Your task to perform on an android device: Is it going to rain this weekend? Image 0: 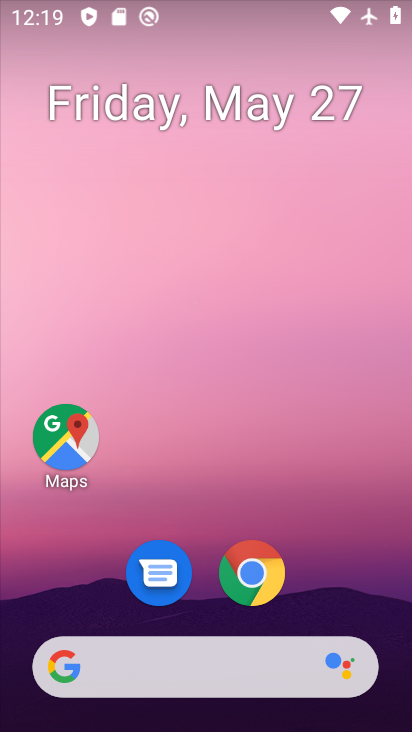
Step 0: drag from (328, 548) to (341, 90)
Your task to perform on an android device: Is it going to rain this weekend? Image 1: 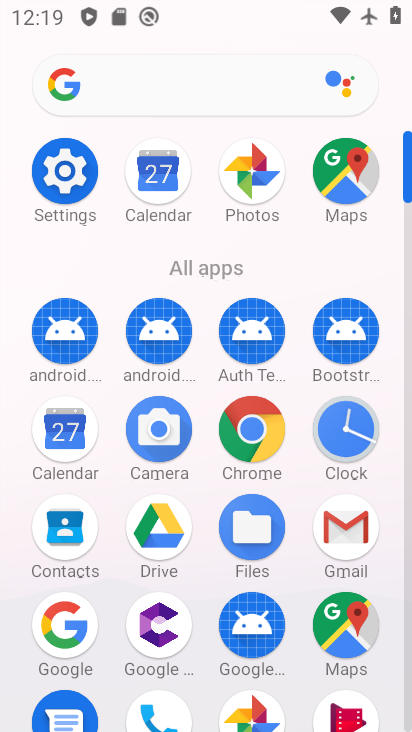
Step 1: click (242, 425)
Your task to perform on an android device: Is it going to rain this weekend? Image 2: 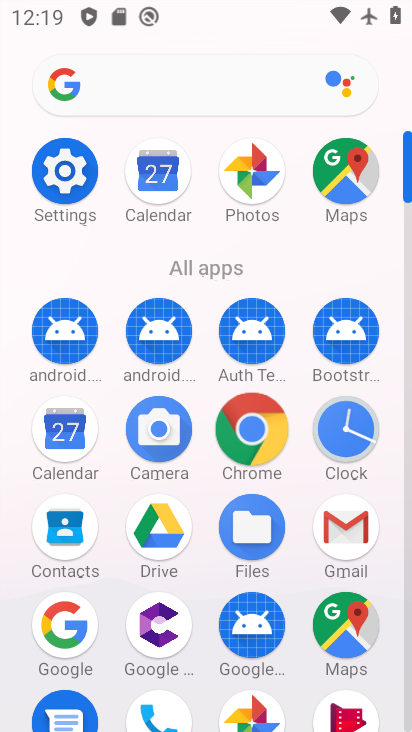
Step 2: click (254, 437)
Your task to perform on an android device: Is it going to rain this weekend? Image 3: 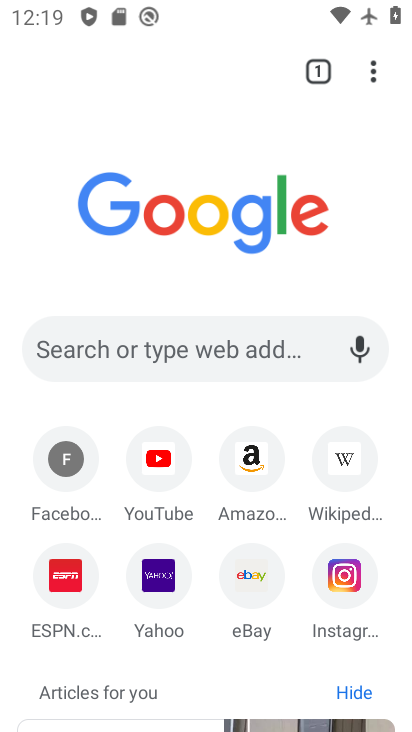
Step 3: click (239, 351)
Your task to perform on an android device: Is it going to rain this weekend? Image 4: 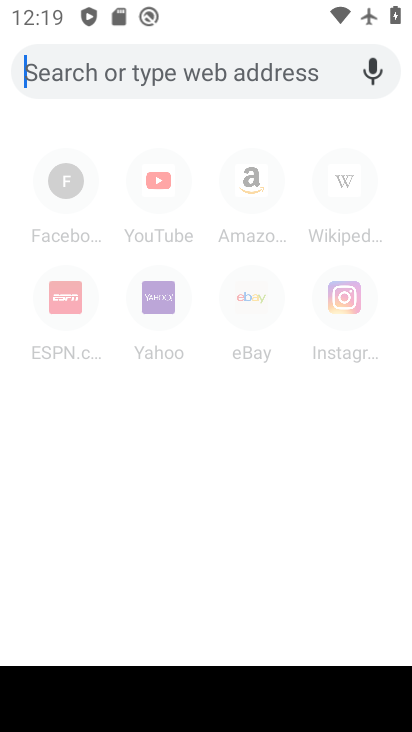
Step 4: type "weather"
Your task to perform on an android device: Is it going to rain this weekend? Image 5: 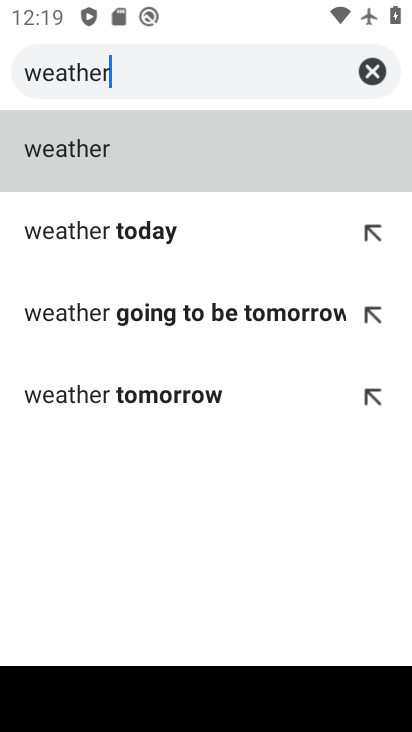
Step 5: click (88, 155)
Your task to perform on an android device: Is it going to rain this weekend? Image 6: 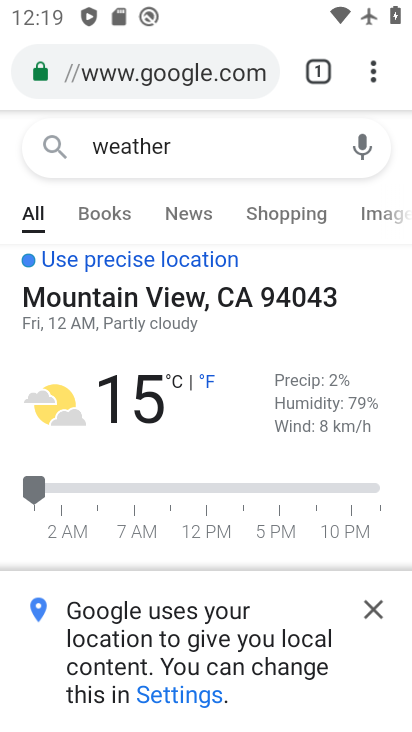
Step 6: drag from (209, 404) to (315, 104)
Your task to perform on an android device: Is it going to rain this weekend? Image 7: 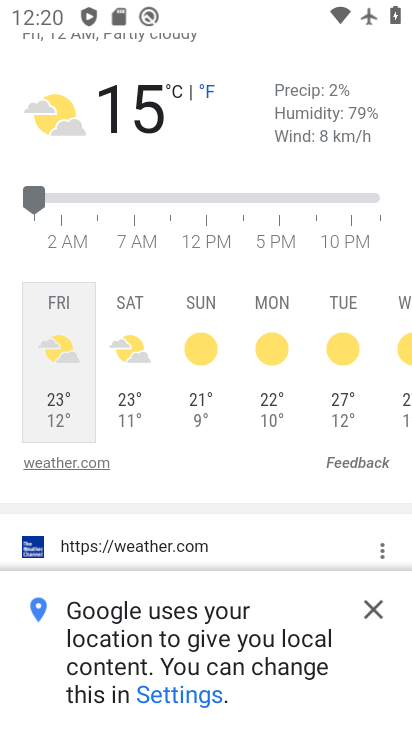
Step 7: click (141, 333)
Your task to perform on an android device: Is it going to rain this weekend? Image 8: 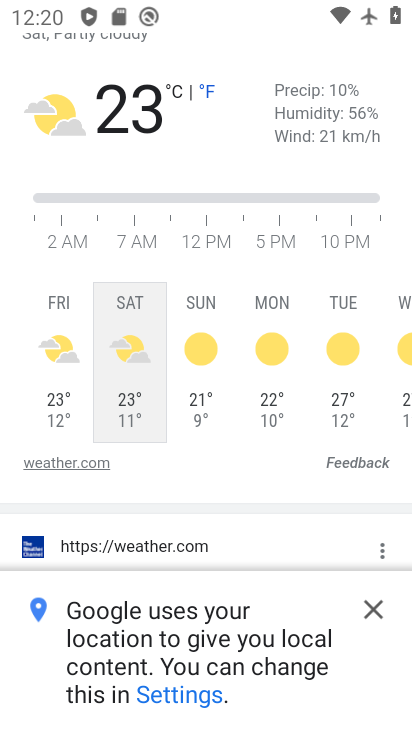
Step 8: task complete